Your task to perform on an android device: Check the news Image 0: 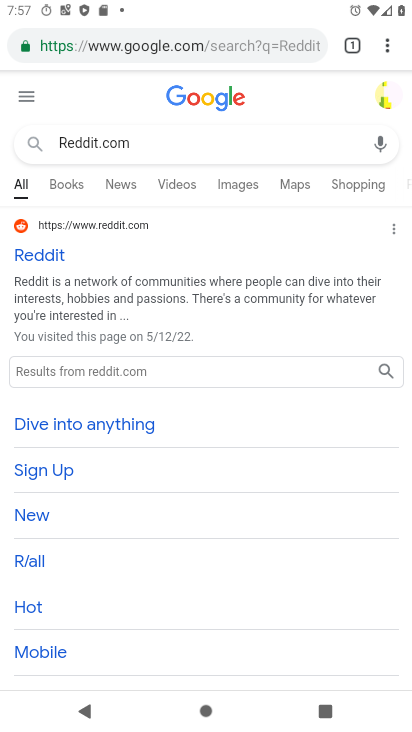
Step 0: press home button
Your task to perform on an android device: Check the news Image 1: 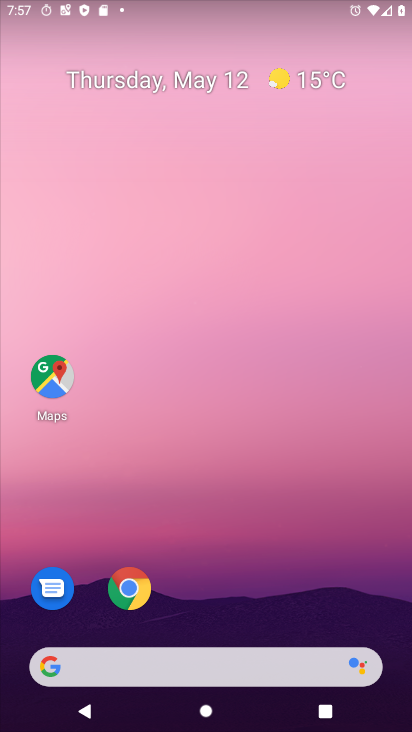
Step 1: click (128, 580)
Your task to perform on an android device: Check the news Image 2: 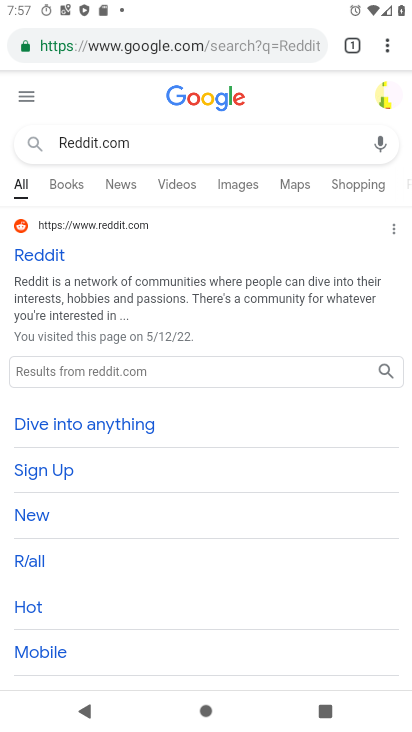
Step 2: click (68, 219)
Your task to perform on an android device: Check the news Image 3: 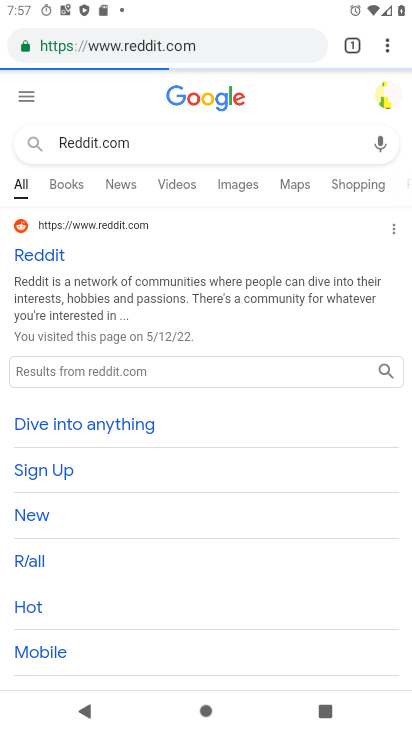
Step 3: click (218, 42)
Your task to perform on an android device: Check the news Image 4: 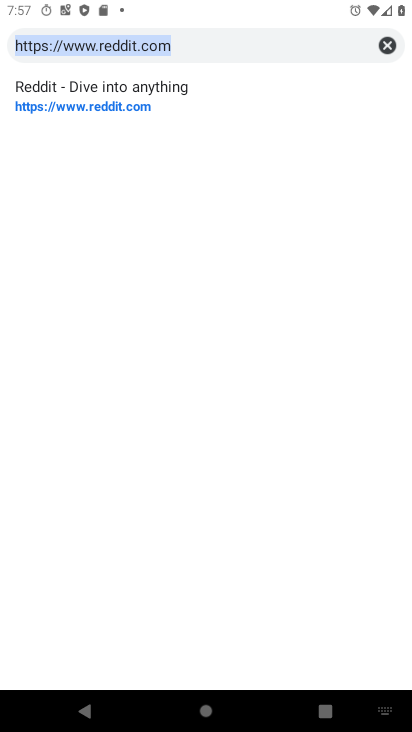
Step 4: type "news"
Your task to perform on an android device: Check the news Image 5: 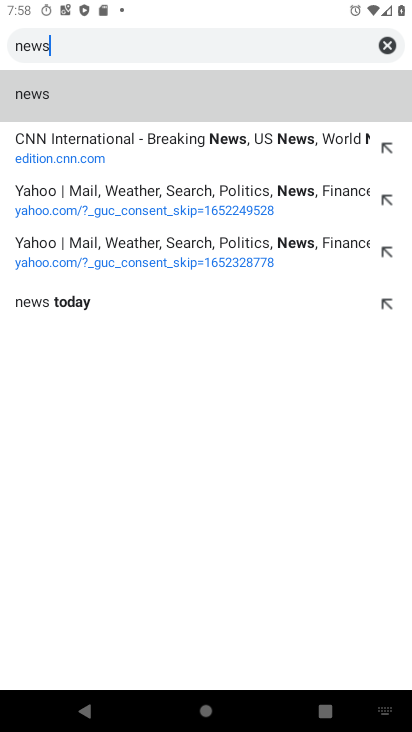
Step 5: click (106, 106)
Your task to perform on an android device: Check the news Image 6: 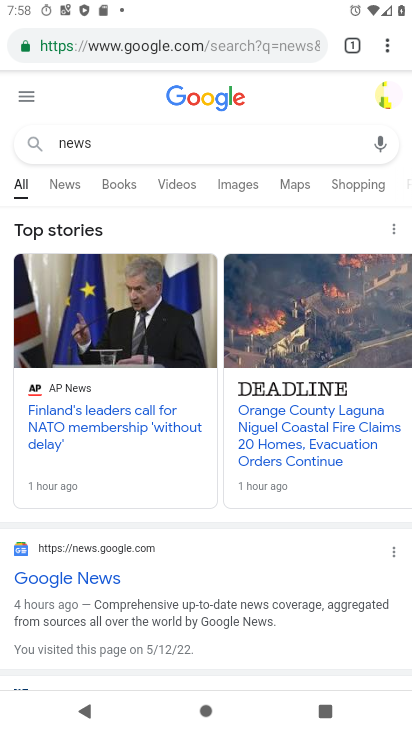
Step 6: task complete